Your task to perform on an android device: change your default location settings in chrome Image 0: 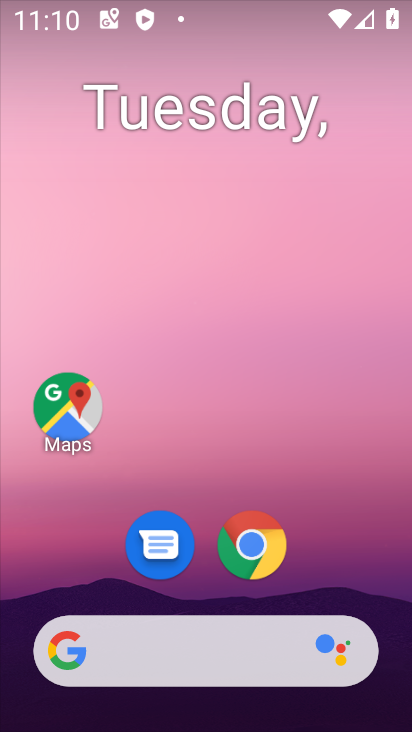
Step 0: drag from (365, 571) to (344, 311)
Your task to perform on an android device: change your default location settings in chrome Image 1: 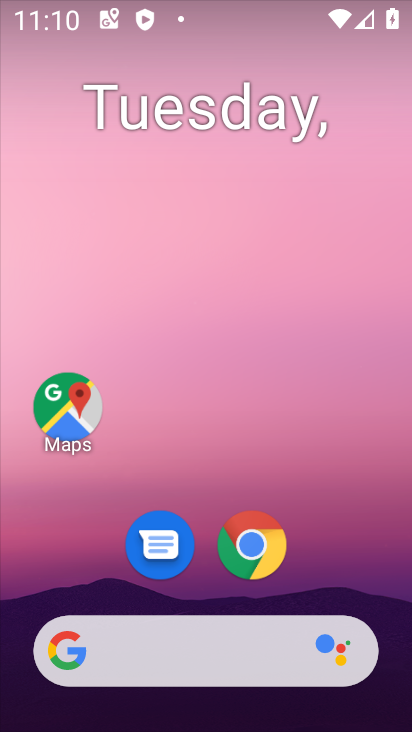
Step 1: click (270, 539)
Your task to perform on an android device: change your default location settings in chrome Image 2: 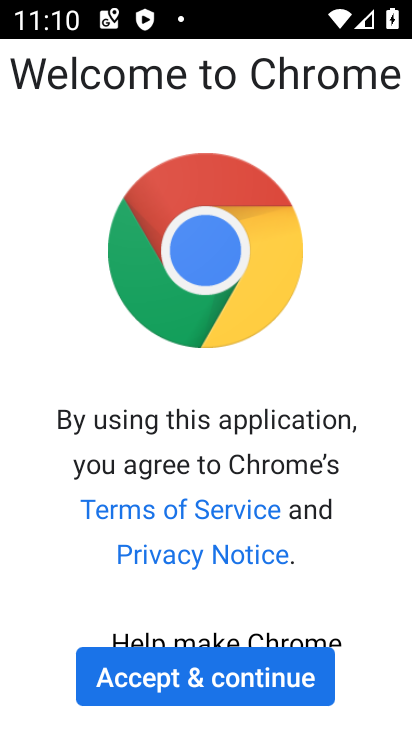
Step 2: click (257, 662)
Your task to perform on an android device: change your default location settings in chrome Image 3: 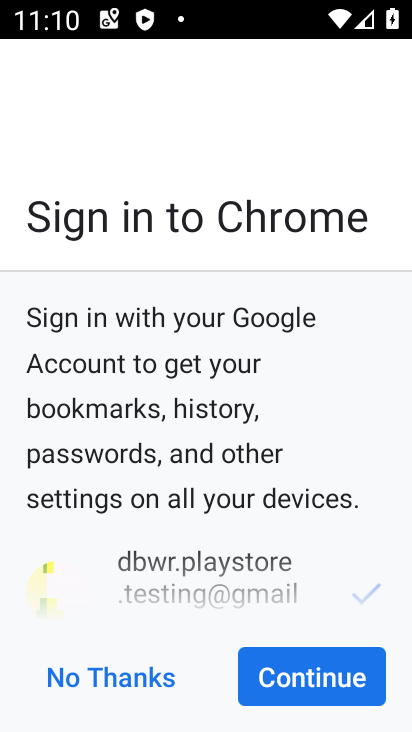
Step 3: click (285, 668)
Your task to perform on an android device: change your default location settings in chrome Image 4: 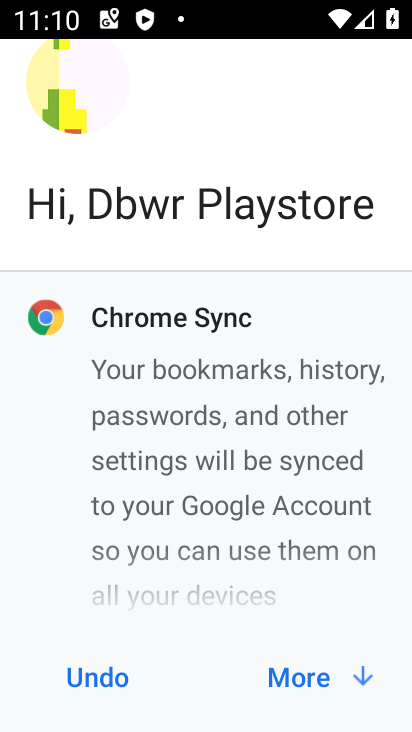
Step 4: click (285, 668)
Your task to perform on an android device: change your default location settings in chrome Image 5: 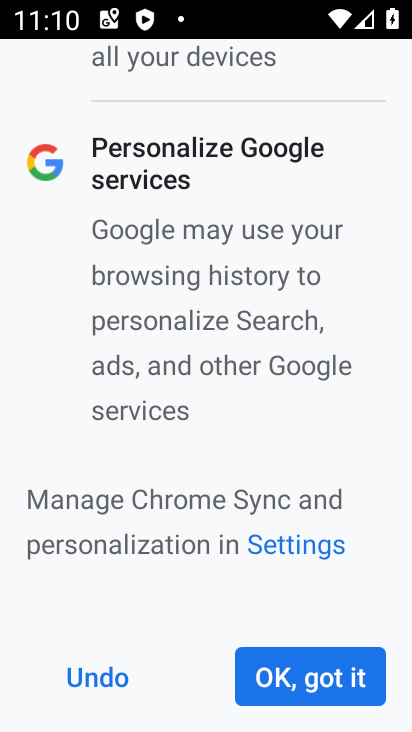
Step 5: click (285, 668)
Your task to perform on an android device: change your default location settings in chrome Image 6: 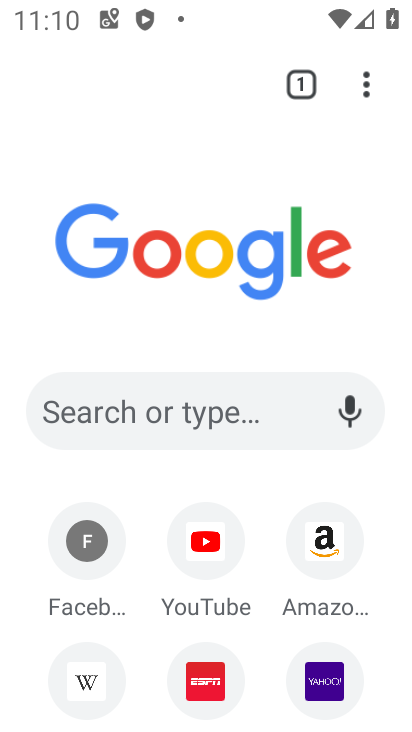
Step 6: click (367, 83)
Your task to perform on an android device: change your default location settings in chrome Image 7: 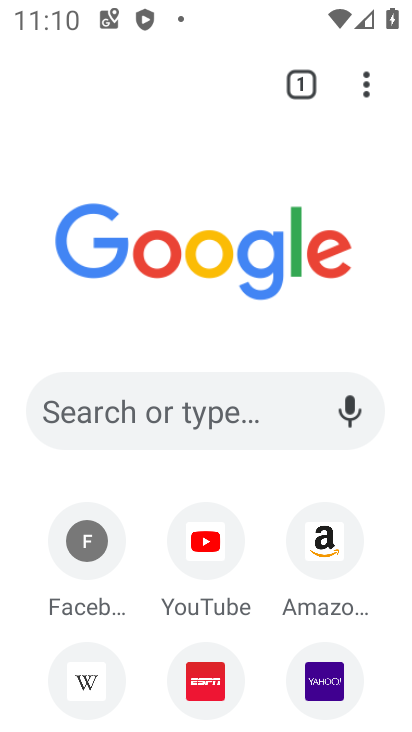
Step 7: click (367, 83)
Your task to perform on an android device: change your default location settings in chrome Image 8: 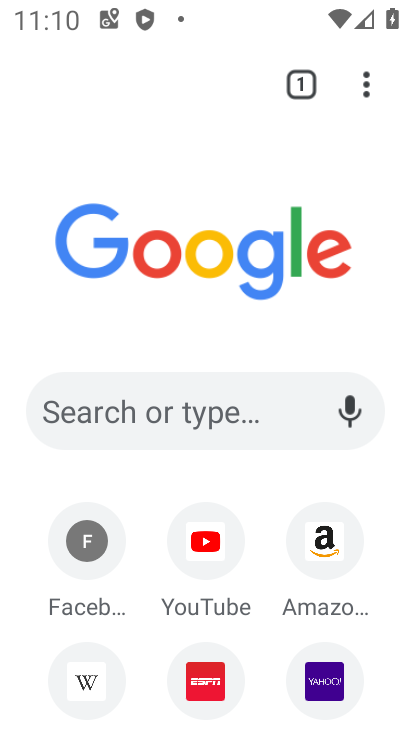
Step 8: click (367, 83)
Your task to perform on an android device: change your default location settings in chrome Image 9: 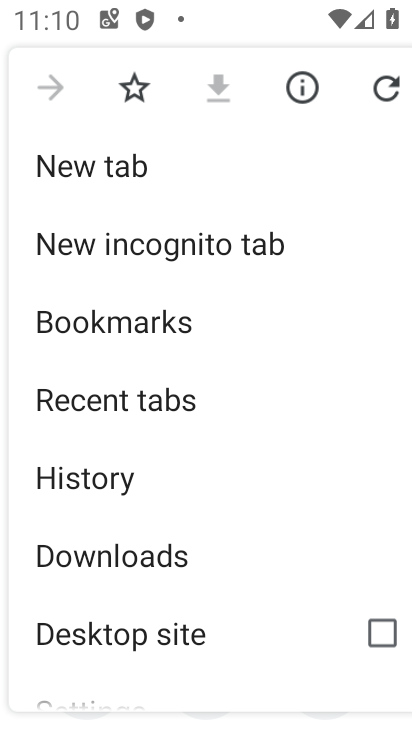
Step 9: drag from (263, 594) to (249, 195)
Your task to perform on an android device: change your default location settings in chrome Image 10: 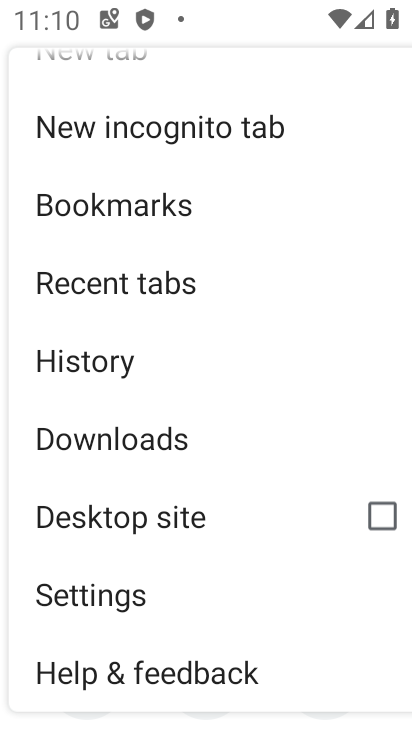
Step 10: click (156, 602)
Your task to perform on an android device: change your default location settings in chrome Image 11: 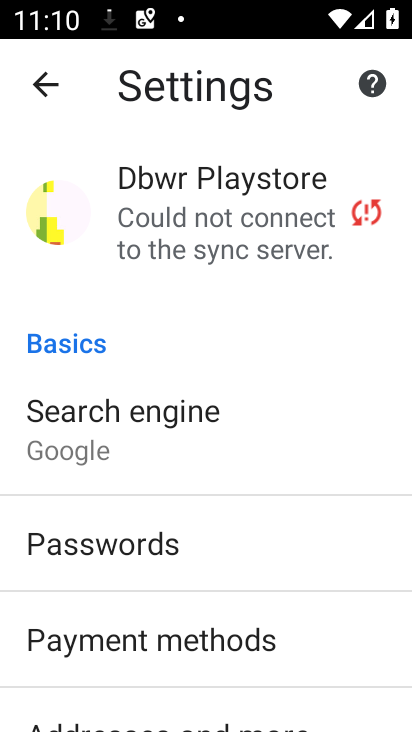
Step 11: drag from (227, 576) to (273, 210)
Your task to perform on an android device: change your default location settings in chrome Image 12: 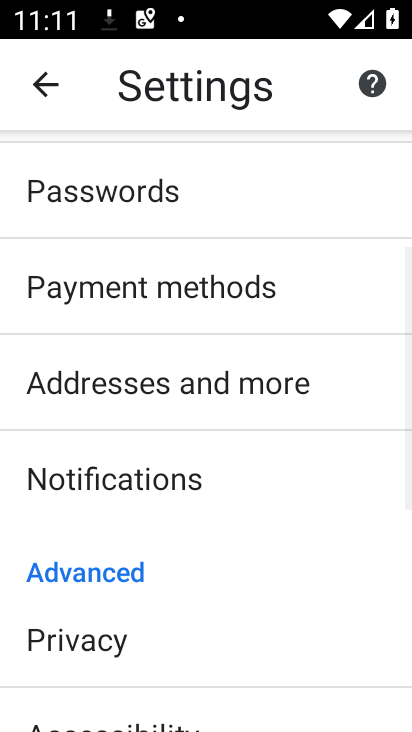
Step 12: drag from (244, 602) to (274, 200)
Your task to perform on an android device: change your default location settings in chrome Image 13: 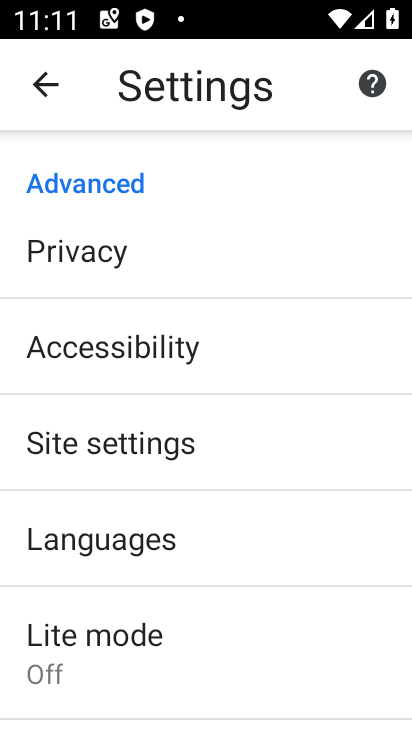
Step 13: click (160, 457)
Your task to perform on an android device: change your default location settings in chrome Image 14: 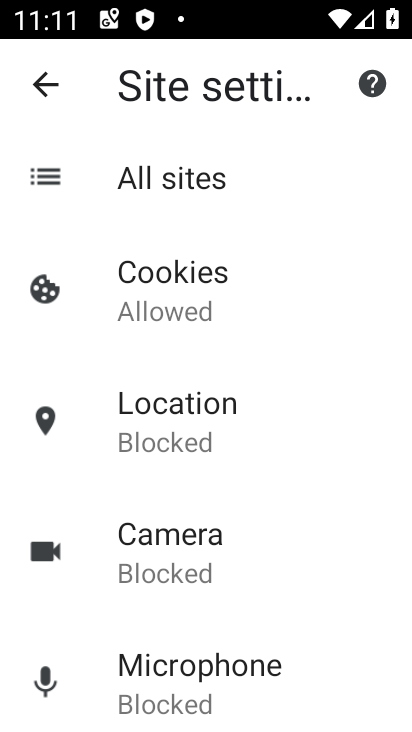
Step 14: click (176, 439)
Your task to perform on an android device: change your default location settings in chrome Image 15: 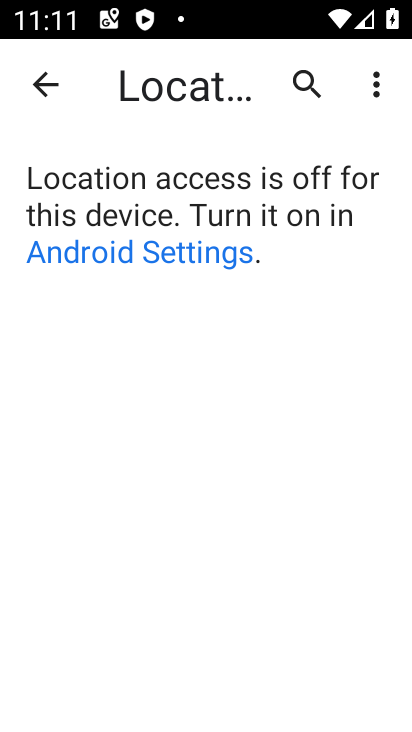
Step 15: click (216, 245)
Your task to perform on an android device: change your default location settings in chrome Image 16: 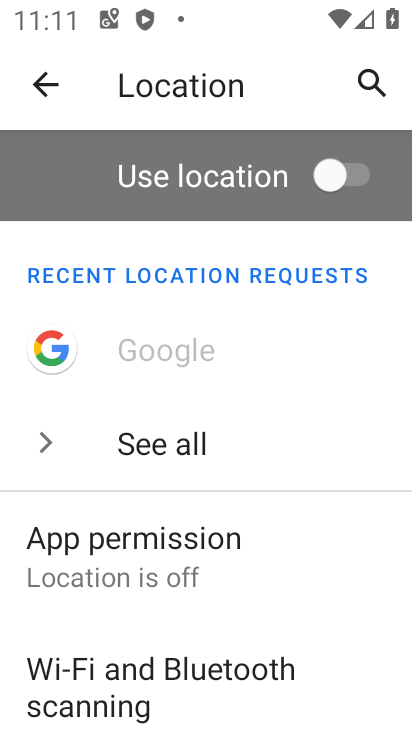
Step 16: click (349, 169)
Your task to perform on an android device: change your default location settings in chrome Image 17: 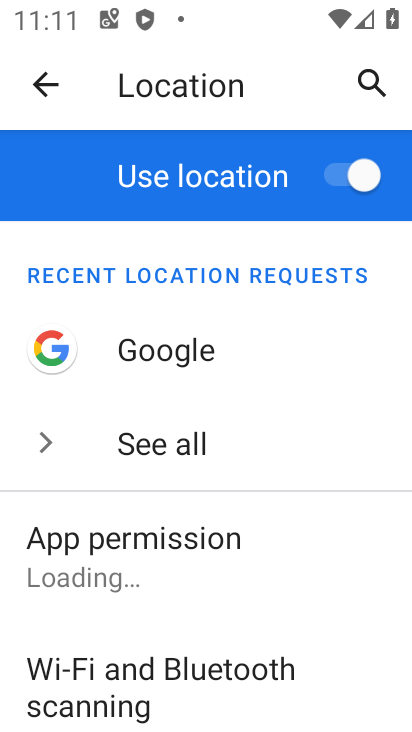
Step 17: task complete